Your task to perform on an android device: Open battery settings Image 0: 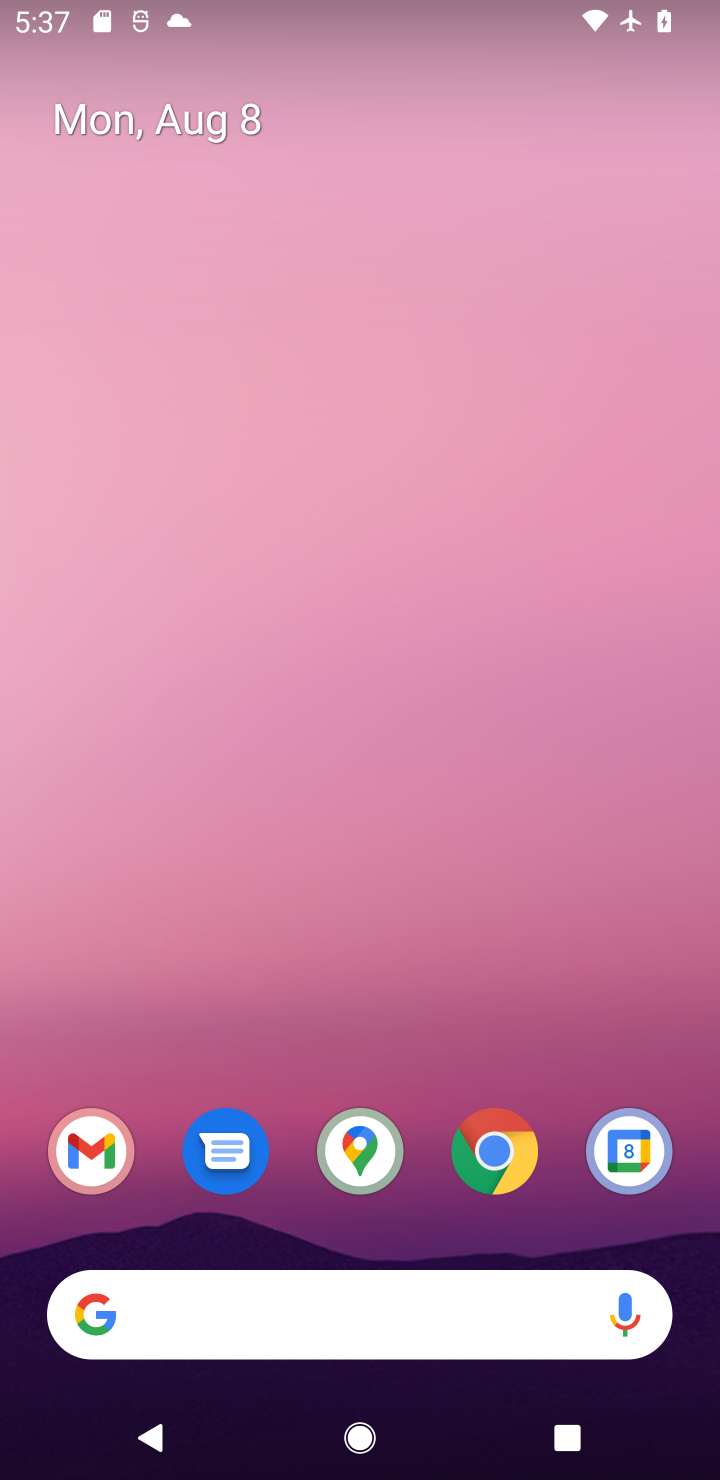
Step 0: drag from (323, 931) to (336, 137)
Your task to perform on an android device: Open battery settings Image 1: 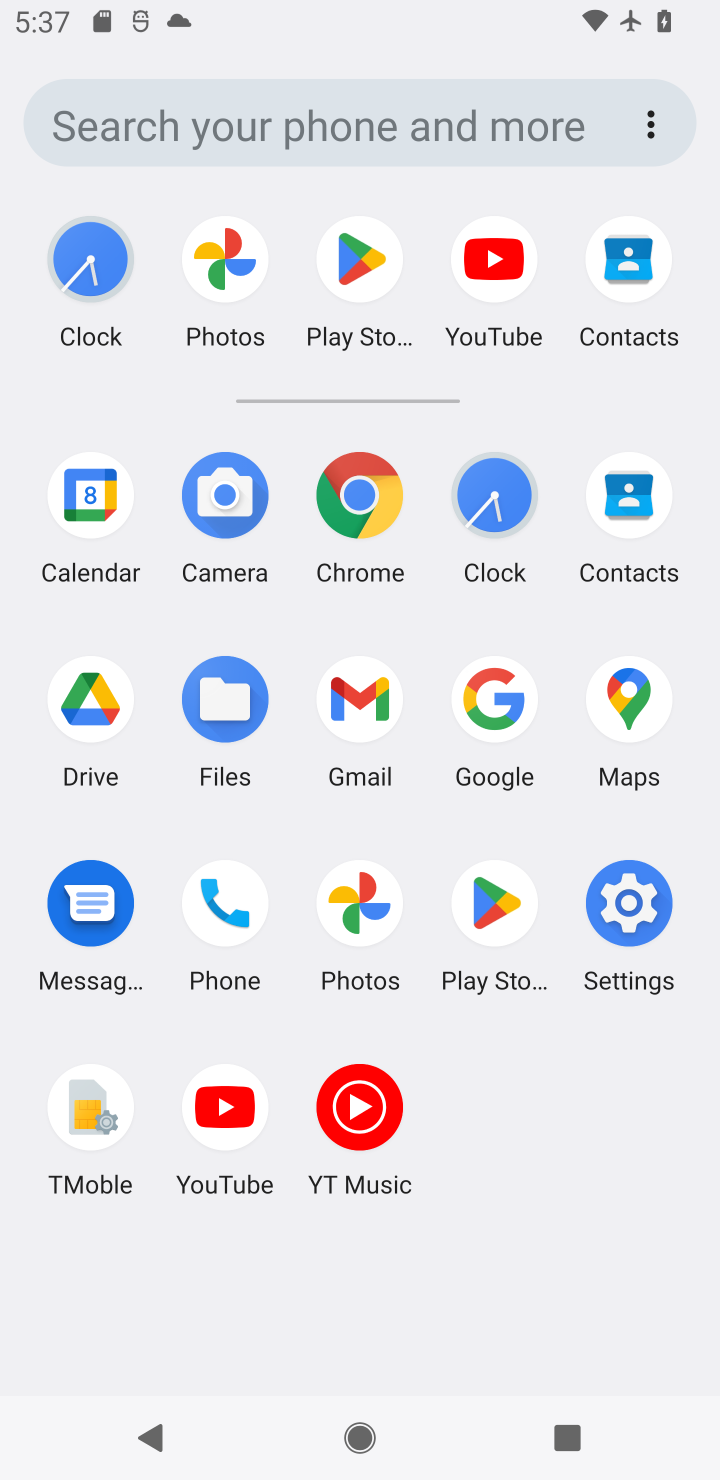
Step 1: click (632, 890)
Your task to perform on an android device: Open battery settings Image 2: 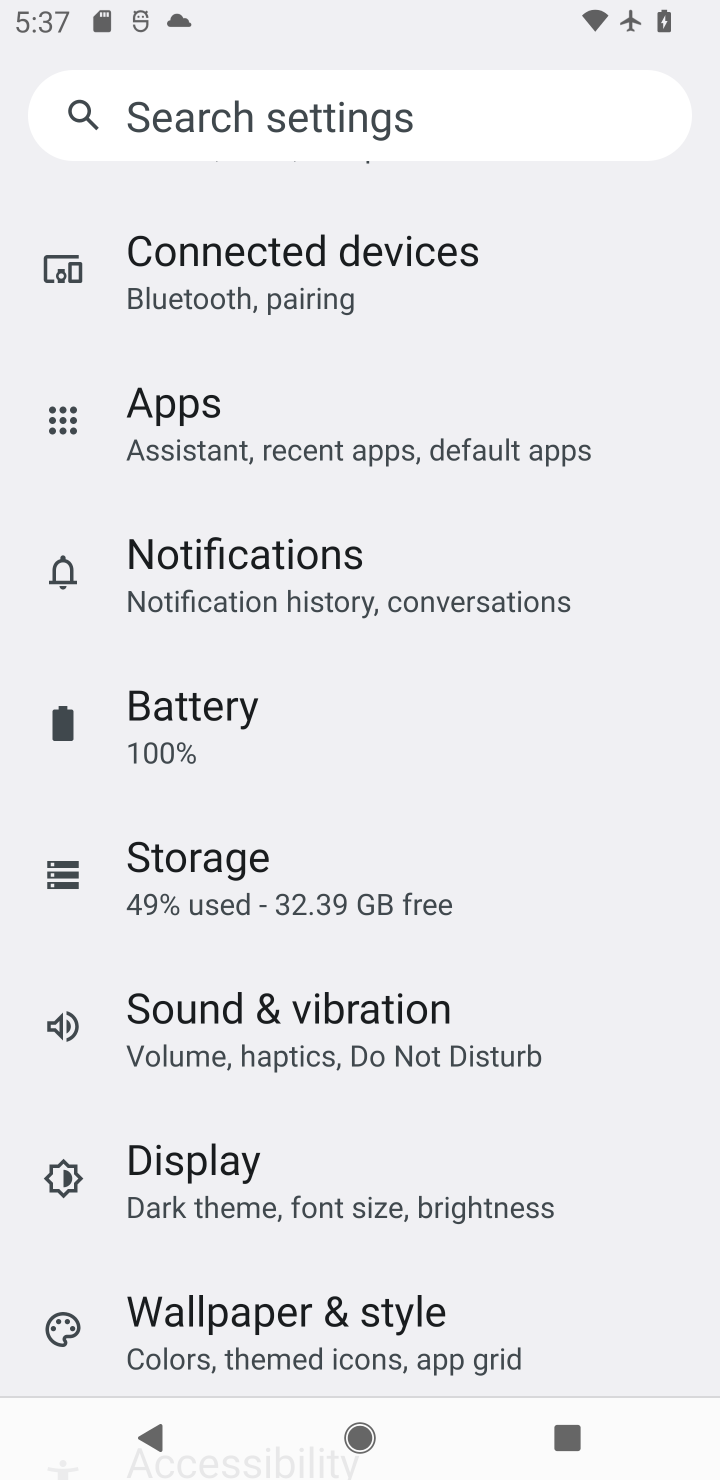
Step 2: click (282, 720)
Your task to perform on an android device: Open battery settings Image 3: 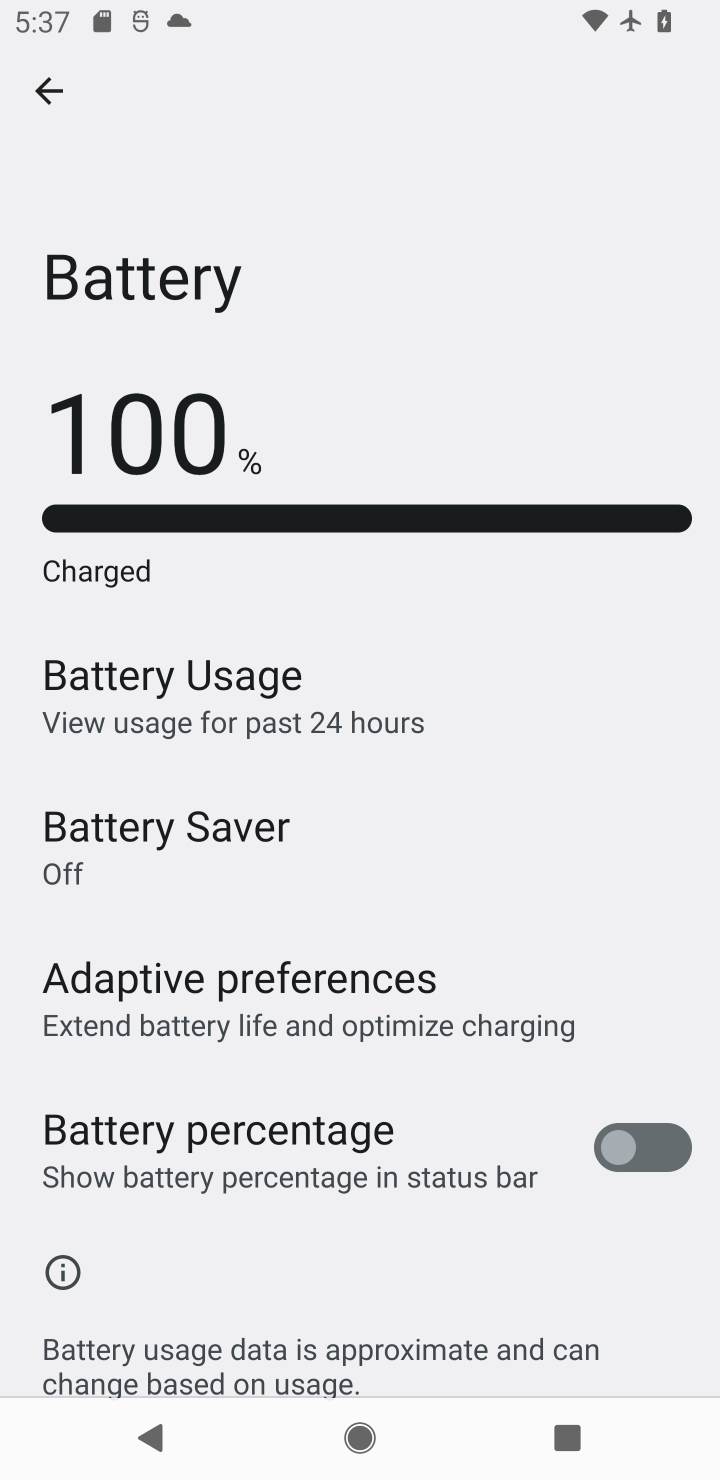
Step 3: task complete